Your task to perform on an android device: change your default location settings in chrome Image 0: 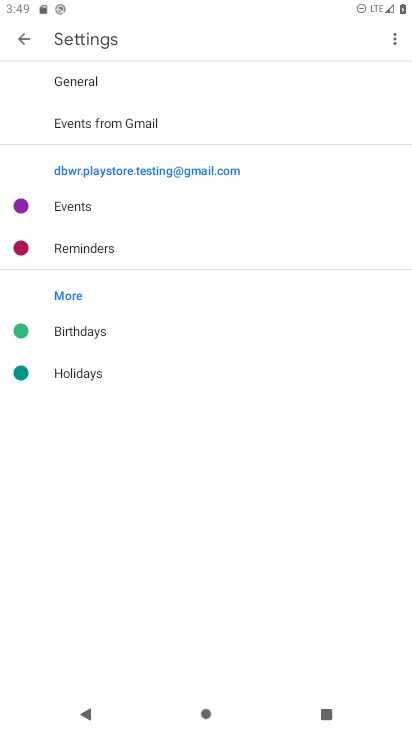
Step 0: press home button
Your task to perform on an android device: change your default location settings in chrome Image 1: 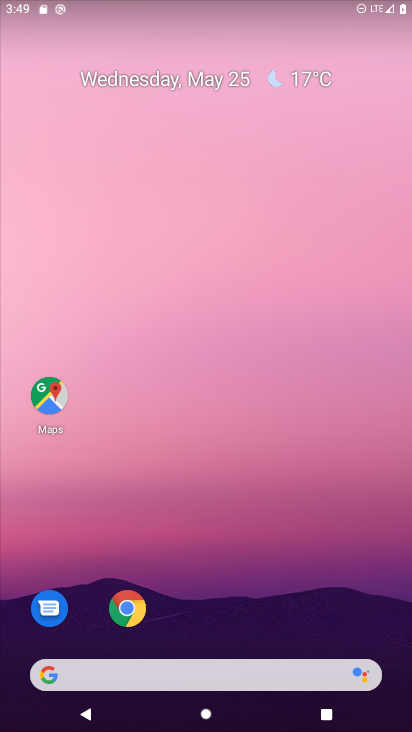
Step 1: click (128, 607)
Your task to perform on an android device: change your default location settings in chrome Image 2: 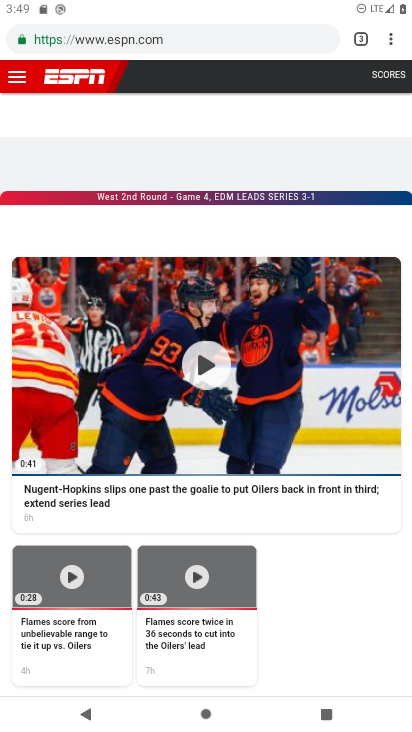
Step 2: click (388, 37)
Your task to perform on an android device: change your default location settings in chrome Image 3: 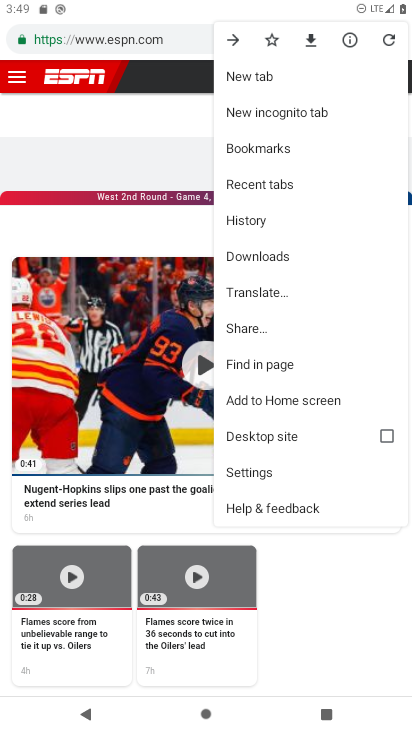
Step 3: click (251, 472)
Your task to perform on an android device: change your default location settings in chrome Image 4: 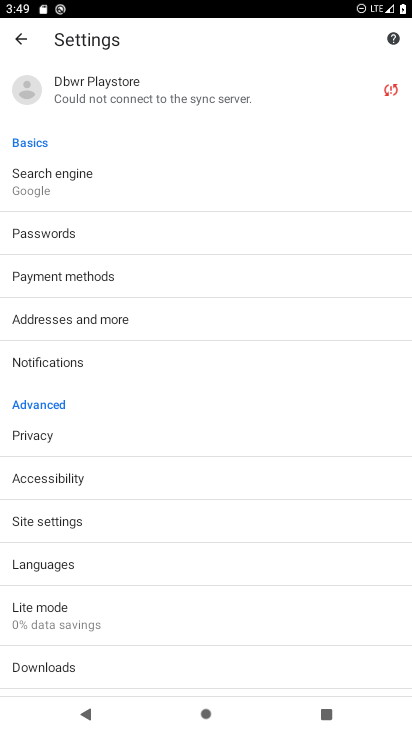
Step 4: click (49, 525)
Your task to perform on an android device: change your default location settings in chrome Image 5: 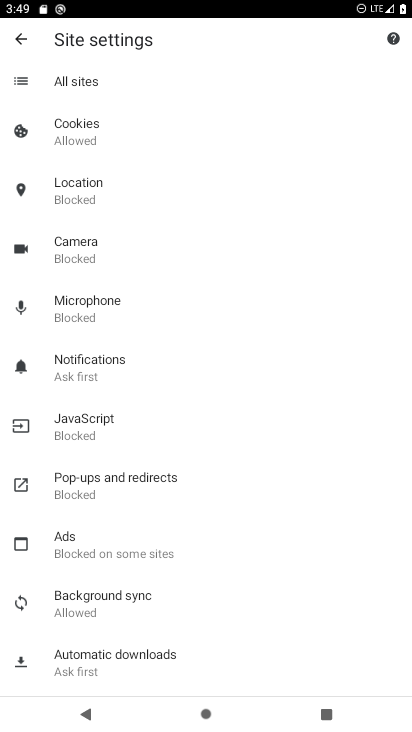
Step 5: click (82, 183)
Your task to perform on an android device: change your default location settings in chrome Image 6: 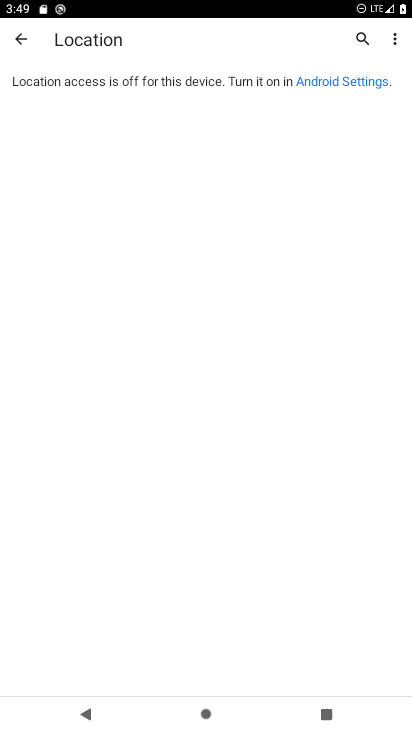
Step 6: task complete